Your task to perform on an android device: Open Youtube and go to "Your channel" Image 0: 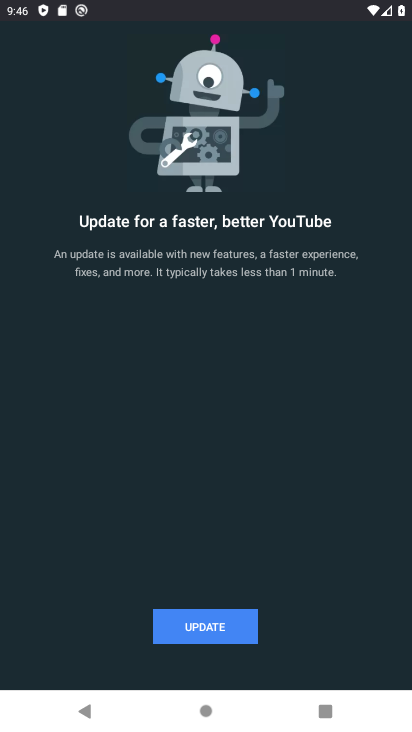
Step 0: press home button
Your task to perform on an android device: Open Youtube and go to "Your channel" Image 1: 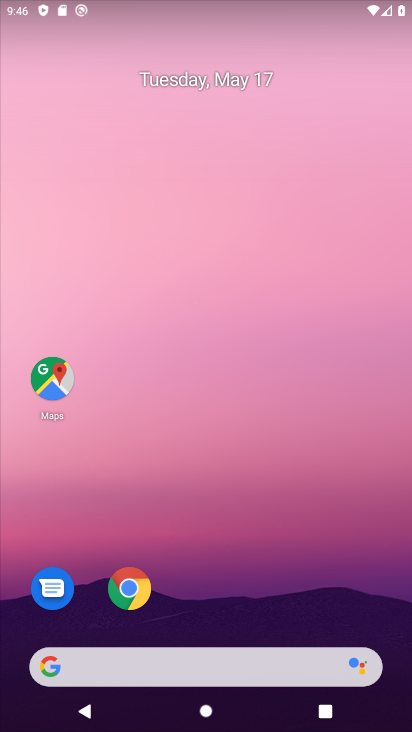
Step 1: drag from (226, 715) to (232, 115)
Your task to perform on an android device: Open Youtube and go to "Your channel" Image 2: 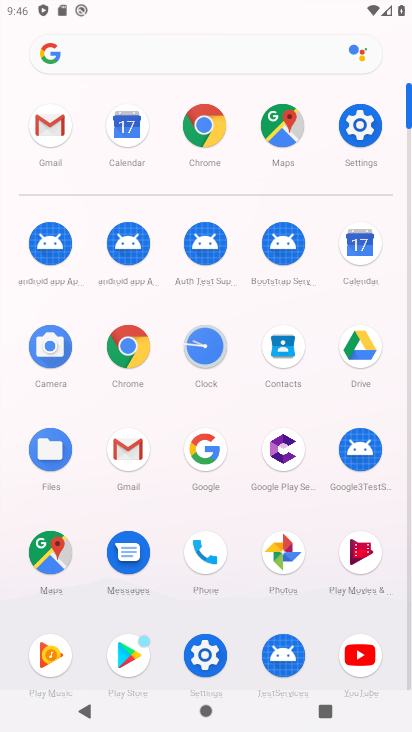
Step 2: click (363, 653)
Your task to perform on an android device: Open Youtube and go to "Your channel" Image 3: 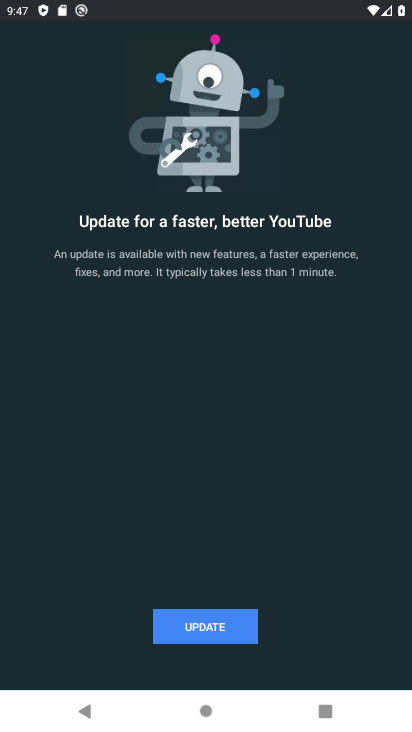
Step 3: task complete